Your task to perform on an android device: Go to Reddit.com Image 0: 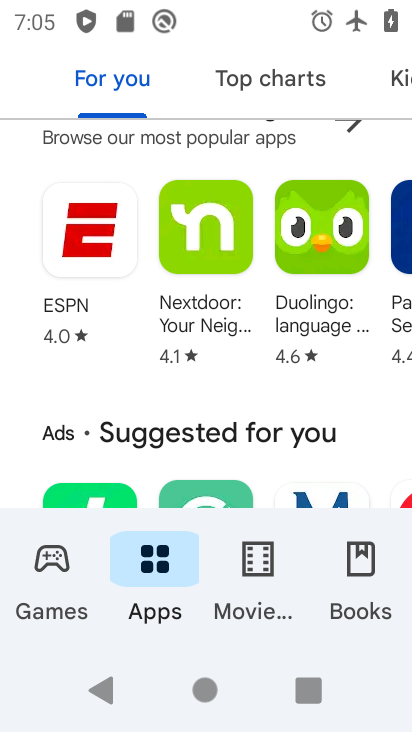
Step 0: press home button
Your task to perform on an android device: Go to Reddit.com Image 1: 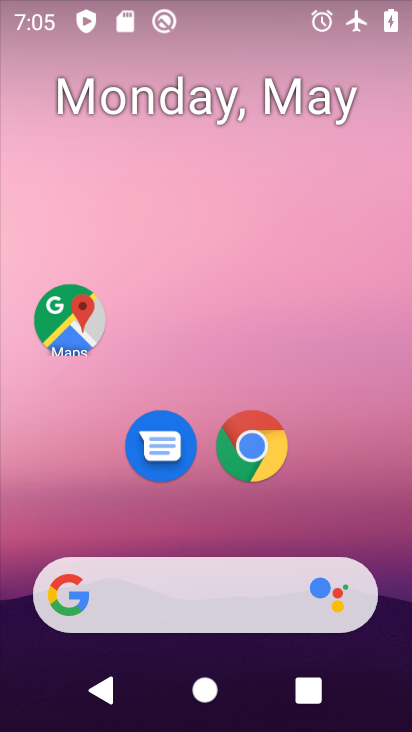
Step 1: click (211, 593)
Your task to perform on an android device: Go to Reddit.com Image 2: 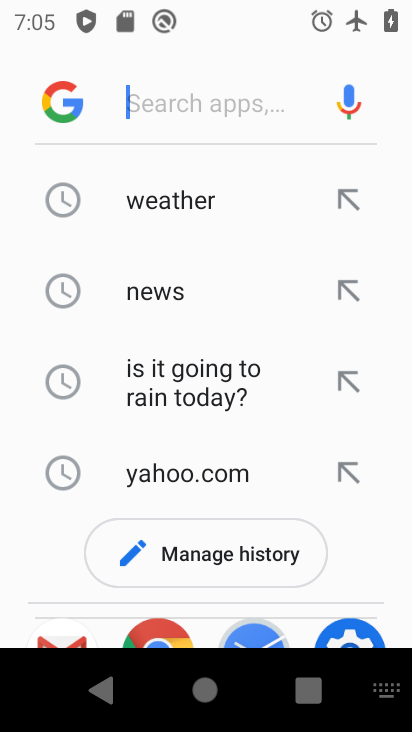
Step 2: type "reddit.com"
Your task to perform on an android device: Go to Reddit.com Image 3: 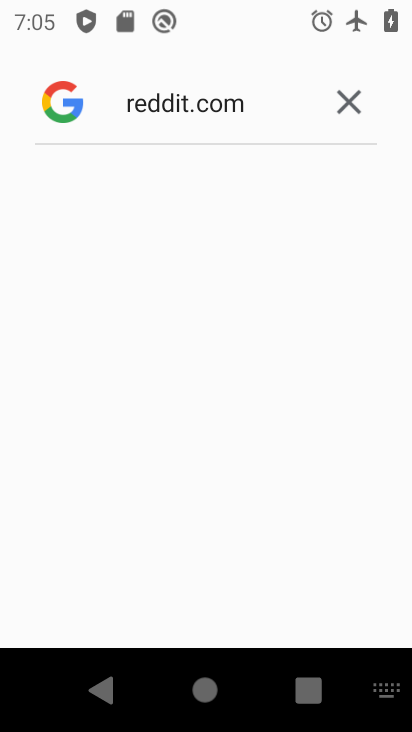
Step 3: task complete